Your task to perform on an android device: Toggle the flashlight Image 0: 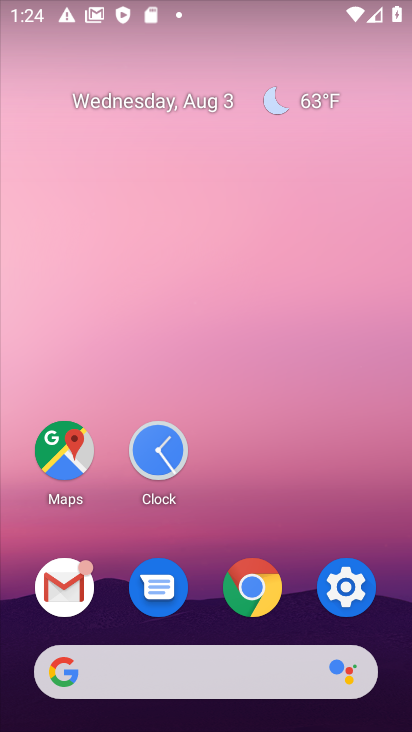
Step 0: click (341, 589)
Your task to perform on an android device: Toggle the flashlight Image 1: 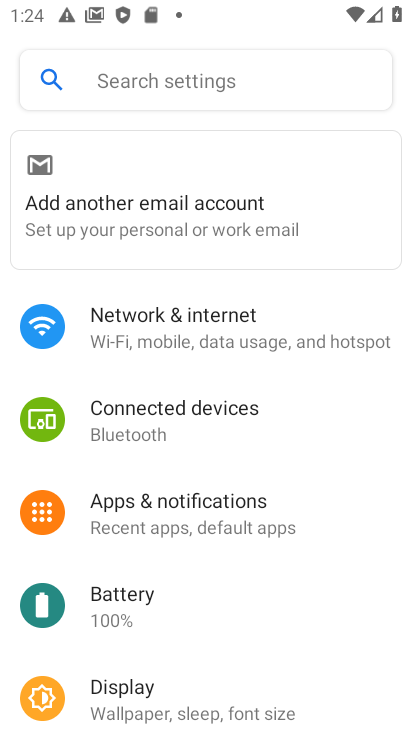
Step 1: click (138, 694)
Your task to perform on an android device: Toggle the flashlight Image 2: 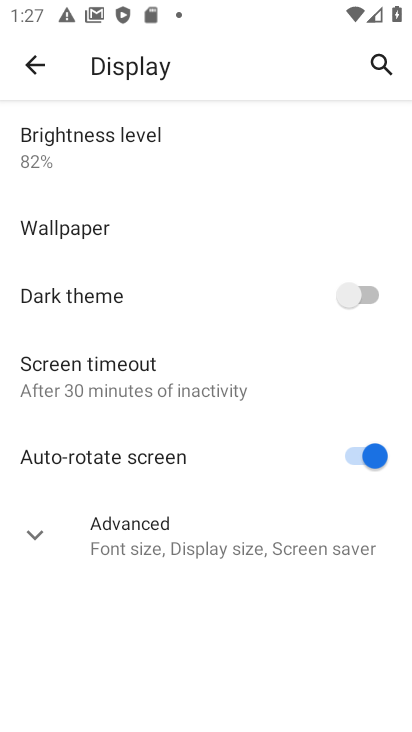
Step 2: task complete